Your task to perform on an android device: Toggle the flashlight Image 0: 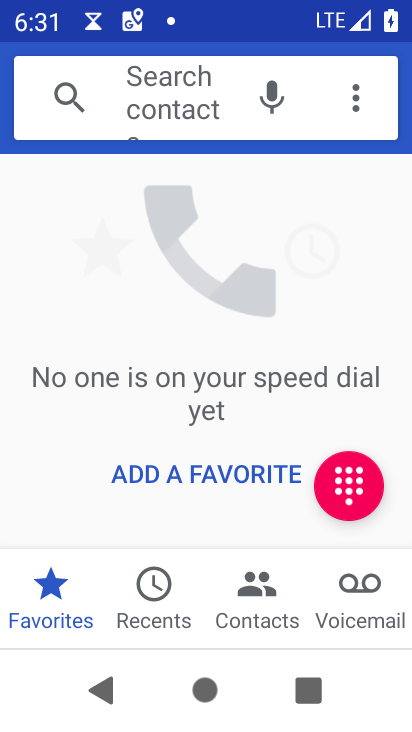
Step 0: press home button
Your task to perform on an android device: Toggle the flashlight Image 1: 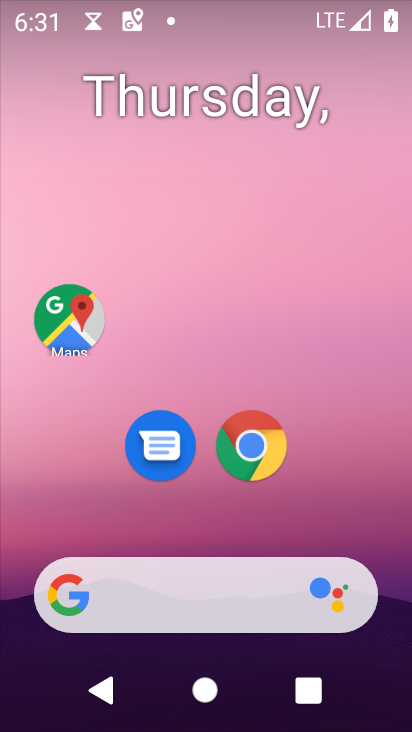
Step 1: task complete